Your task to perform on an android device: Search for custom wallets on Etsy. Image 0: 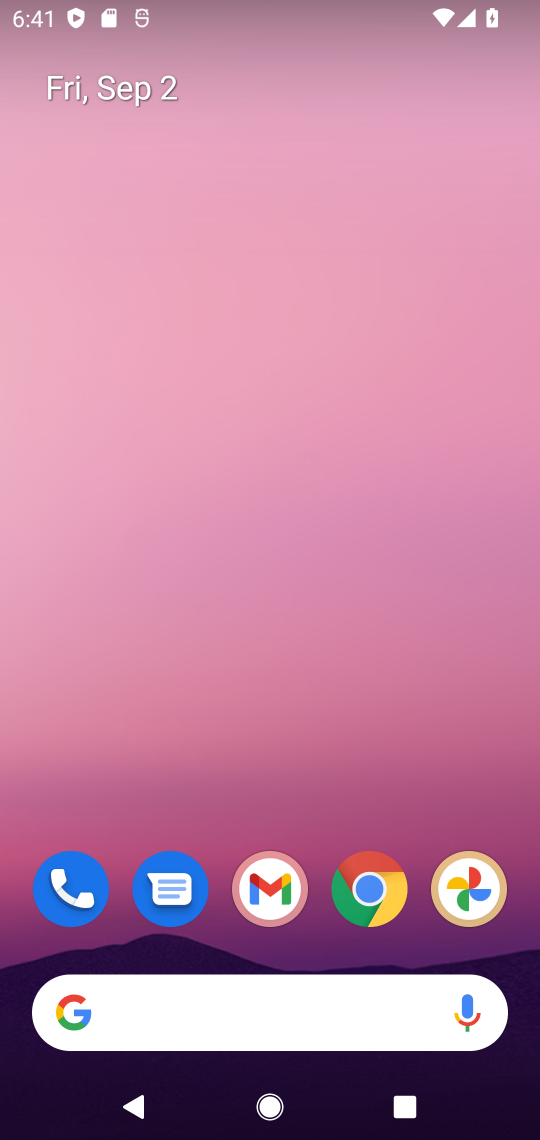
Step 0: click (290, 987)
Your task to perform on an android device: Search for custom wallets on Etsy. Image 1: 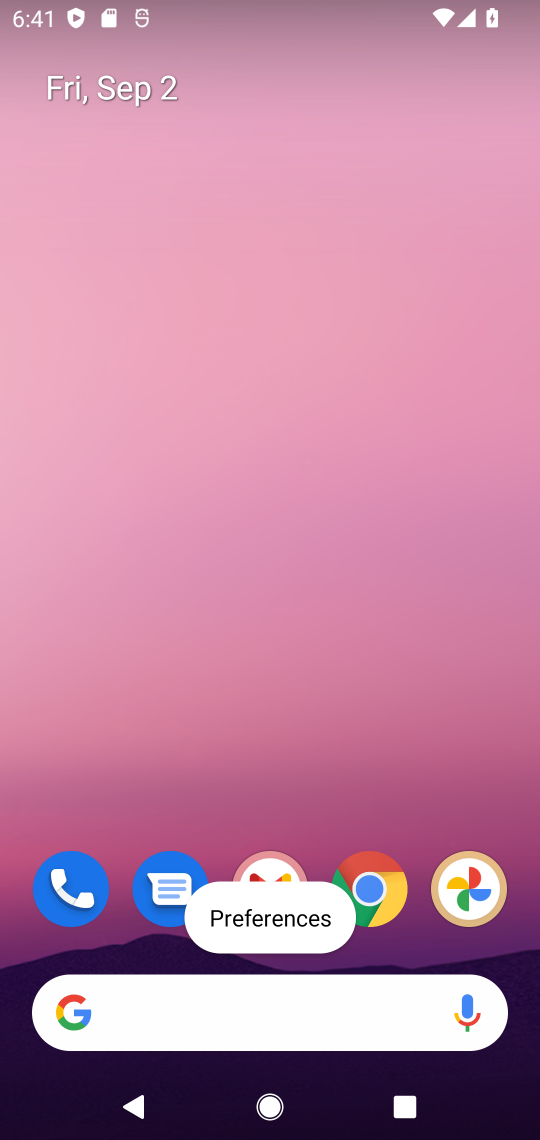
Step 1: click (330, 1029)
Your task to perform on an android device: Search for custom wallets on Etsy. Image 2: 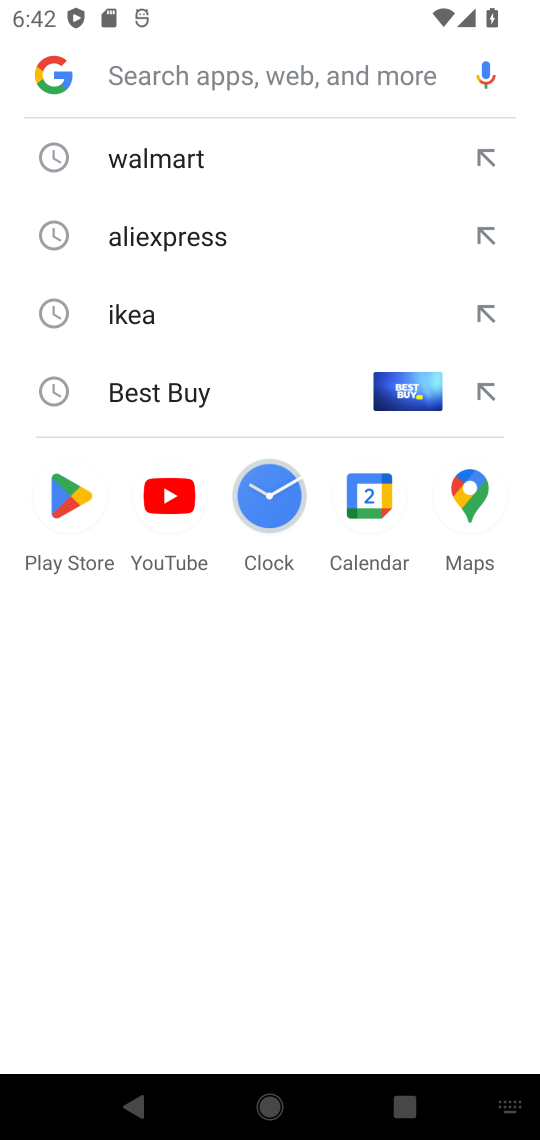
Step 2: type "Etsy."
Your task to perform on an android device: Search for custom wallets on Etsy. Image 3: 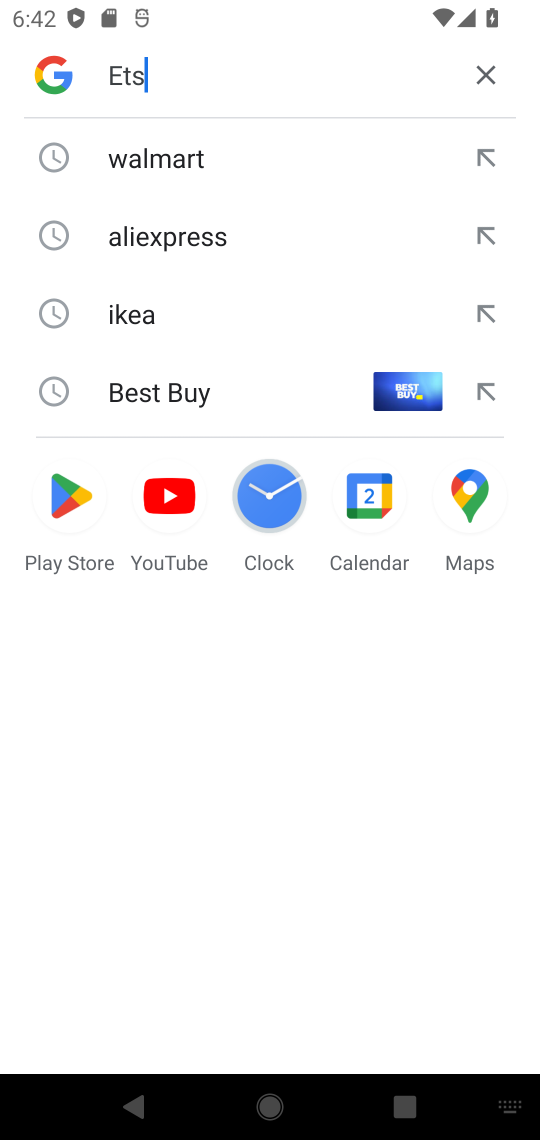
Step 3: type ""
Your task to perform on an android device: Search for custom wallets on Etsy. Image 4: 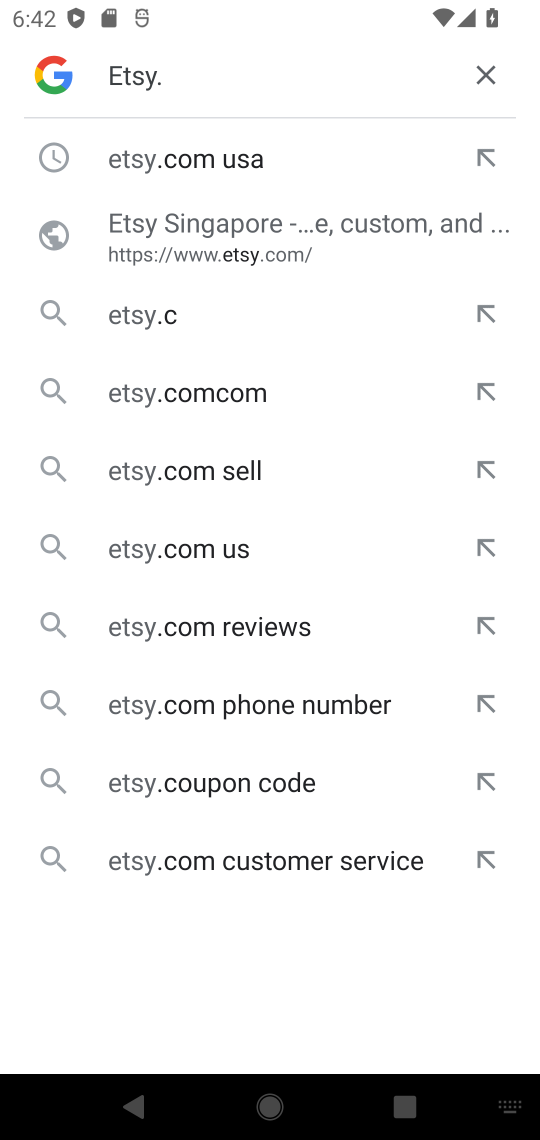
Step 4: click (239, 160)
Your task to perform on an android device: Search for custom wallets on Etsy. Image 5: 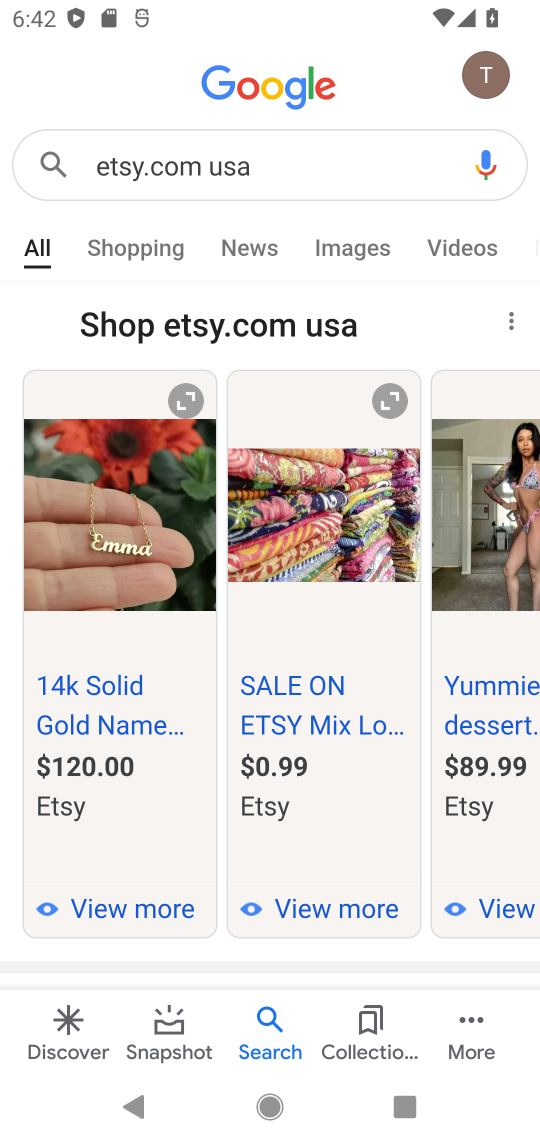
Step 5: drag from (217, 834) to (259, 180)
Your task to perform on an android device: Search for custom wallets on Etsy. Image 6: 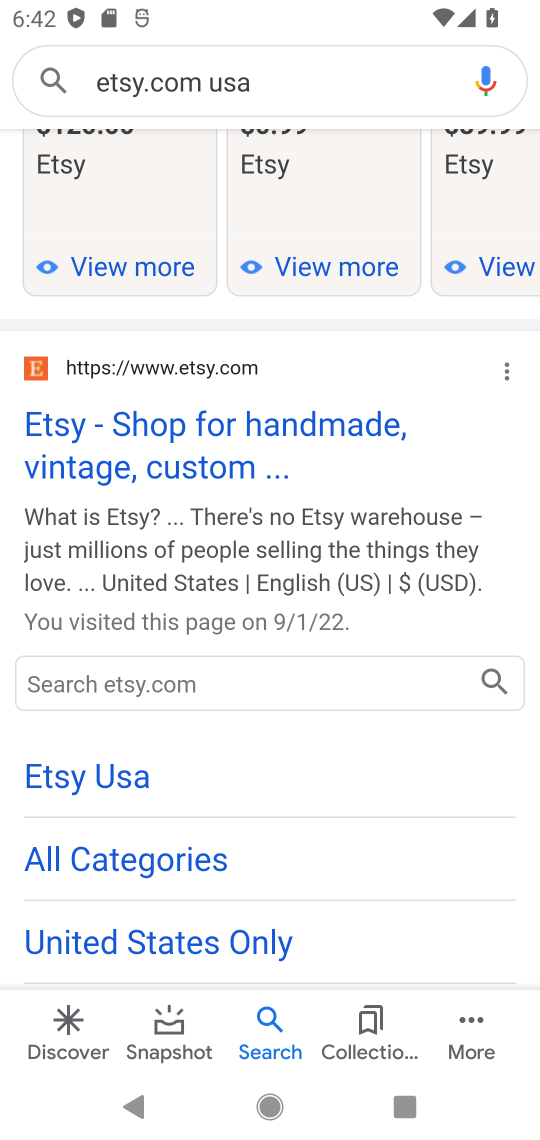
Step 6: click (224, 444)
Your task to perform on an android device: Search for custom wallets on Etsy. Image 7: 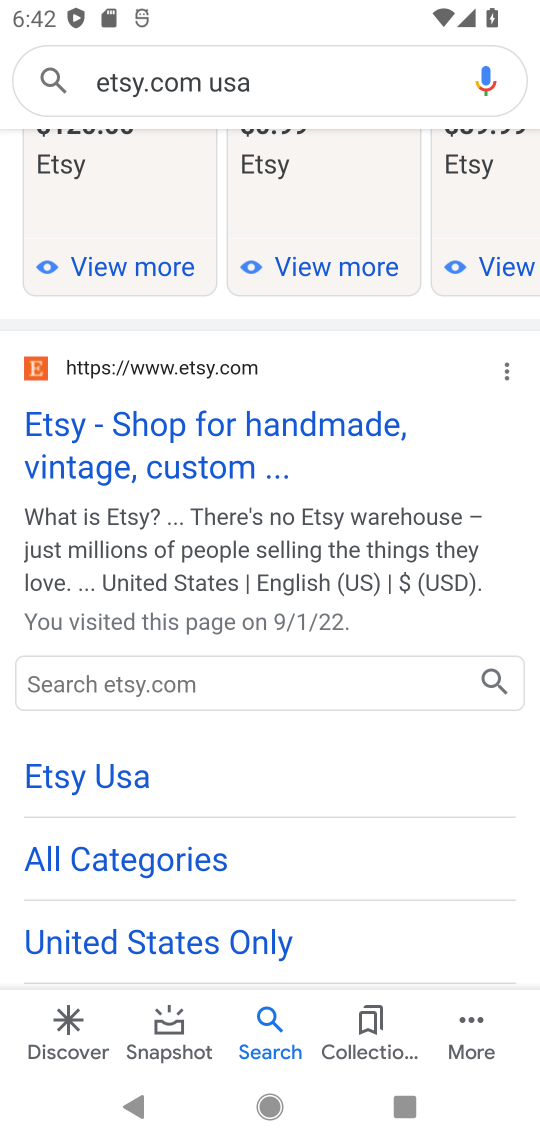
Step 7: click (211, 444)
Your task to perform on an android device: Search for custom wallets on Etsy. Image 8: 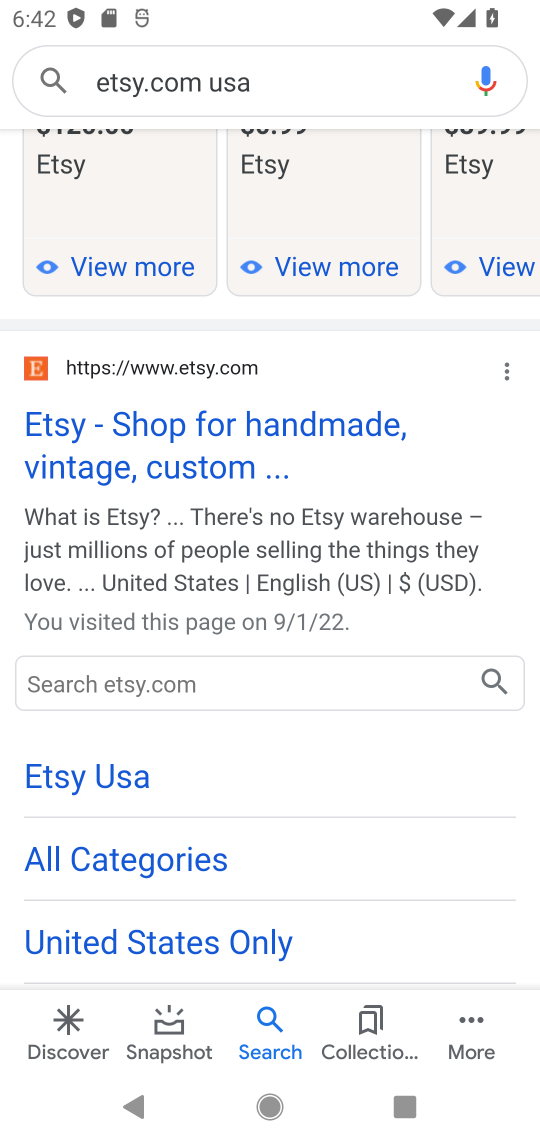
Step 8: click (181, 413)
Your task to perform on an android device: Search for custom wallets on Etsy. Image 9: 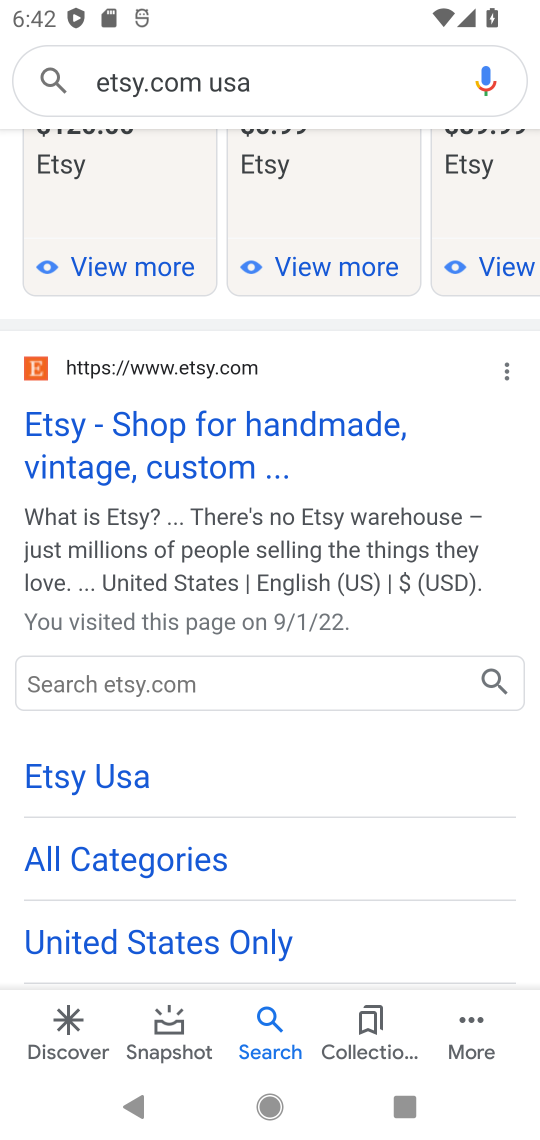
Step 9: click (183, 432)
Your task to perform on an android device: Search for custom wallets on Etsy. Image 10: 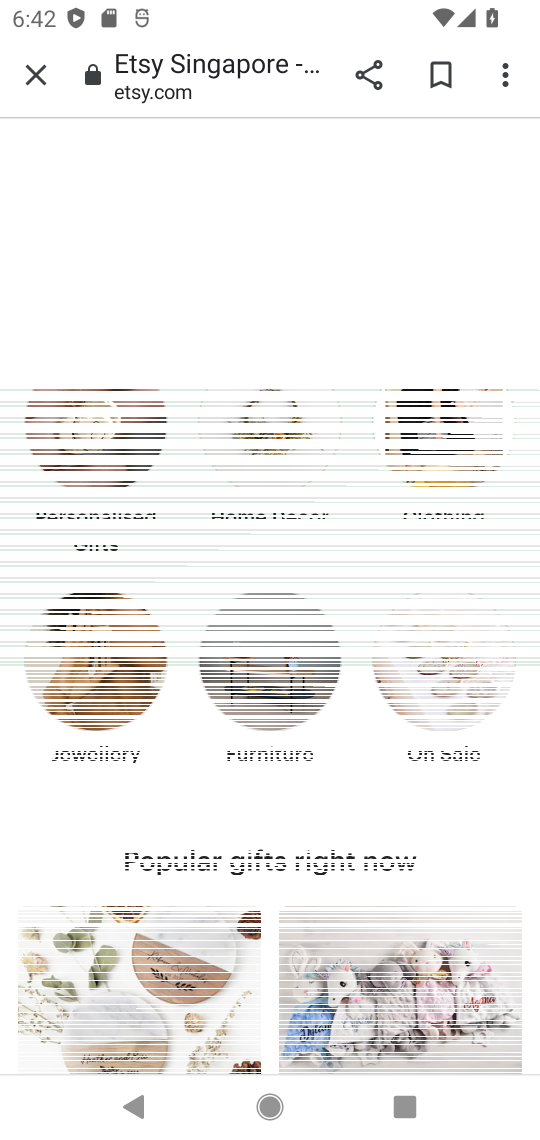
Step 10: click (212, 157)
Your task to perform on an android device: Search for custom wallets on Etsy. Image 11: 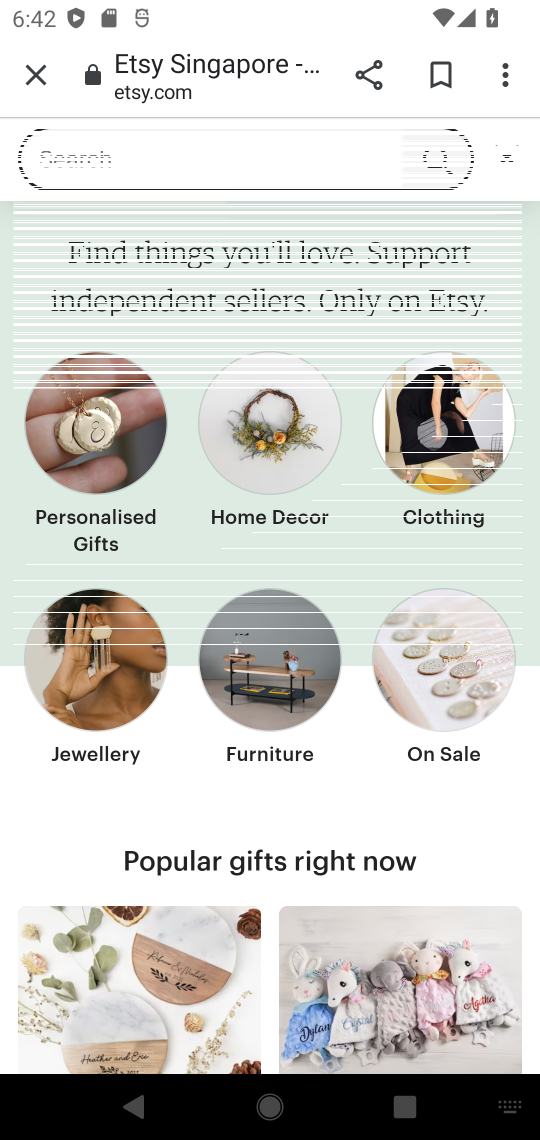
Step 11: type "custom wallets"
Your task to perform on an android device: Search for custom wallets on Etsy. Image 12: 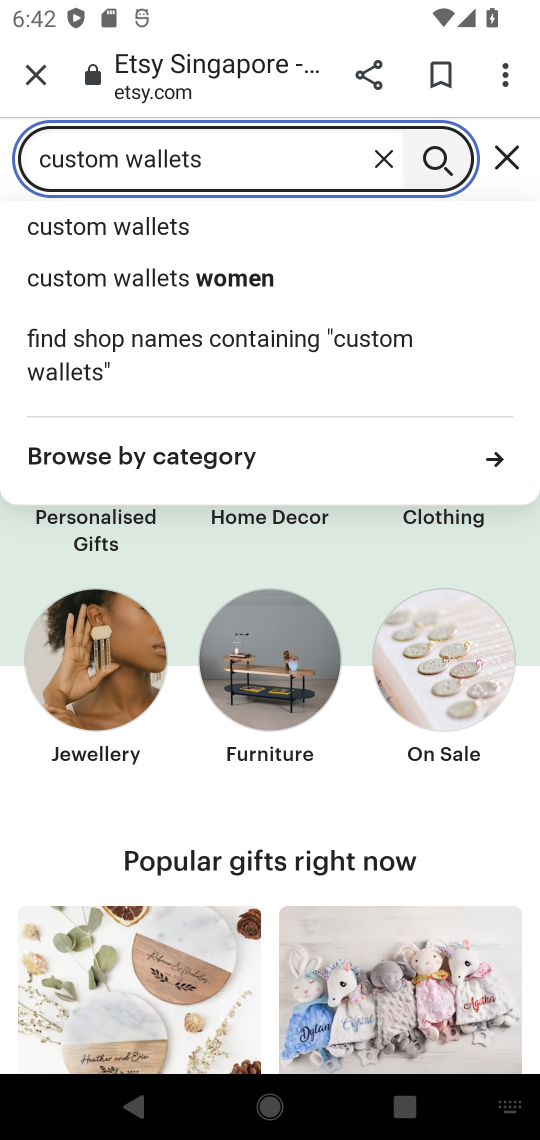
Step 12: click (177, 230)
Your task to perform on an android device: Search for custom wallets on Etsy. Image 13: 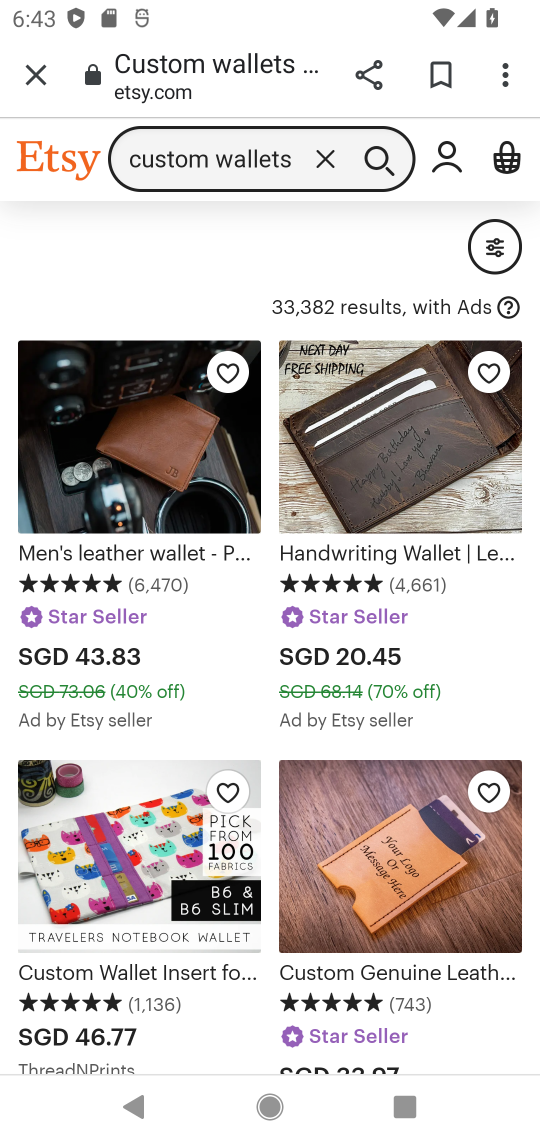
Step 13: task complete